Your task to perform on an android device: Go to notification settings Image 0: 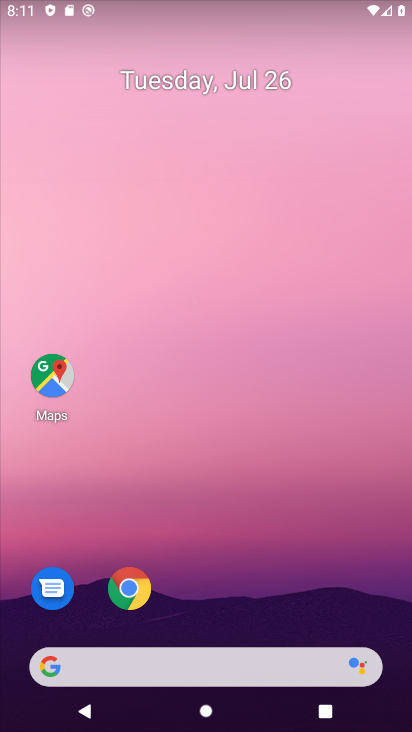
Step 0: drag from (260, 606) to (260, 135)
Your task to perform on an android device: Go to notification settings Image 1: 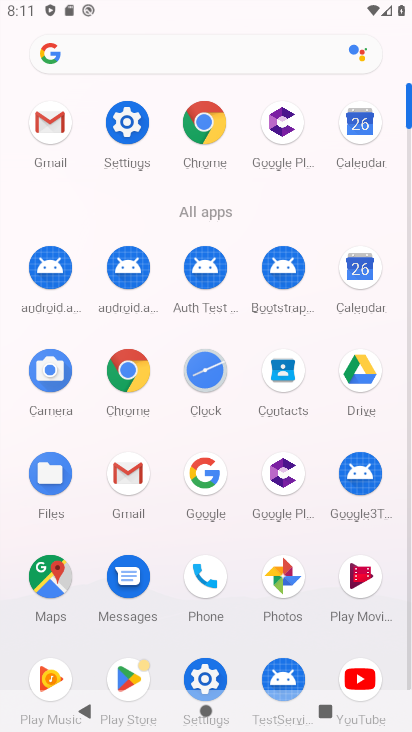
Step 1: click (127, 126)
Your task to perform on an android device: Go to notification settings Image 2: 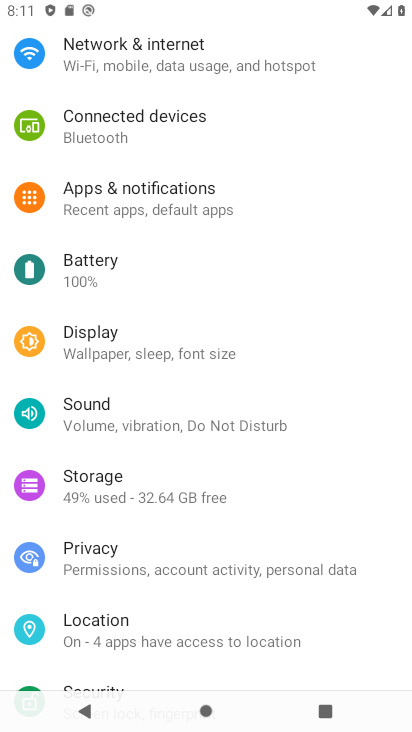
Step 2: click (143, 193)
Your task to perform on an android device: Go to notification settings Image 3: 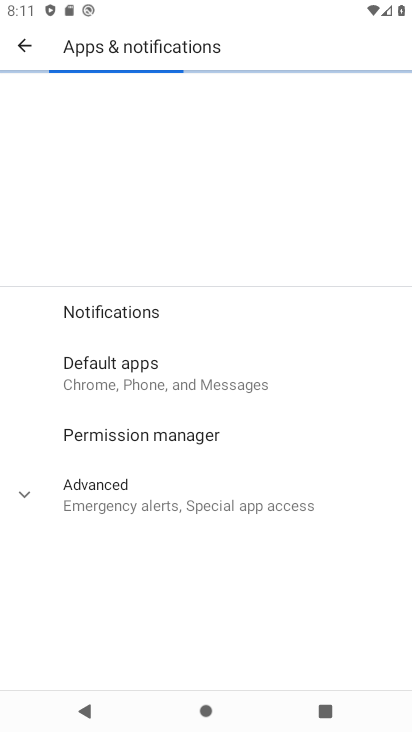
Step 3: click (106, 319)
Your task to perform on an android device: Go to notification settings Image 4: 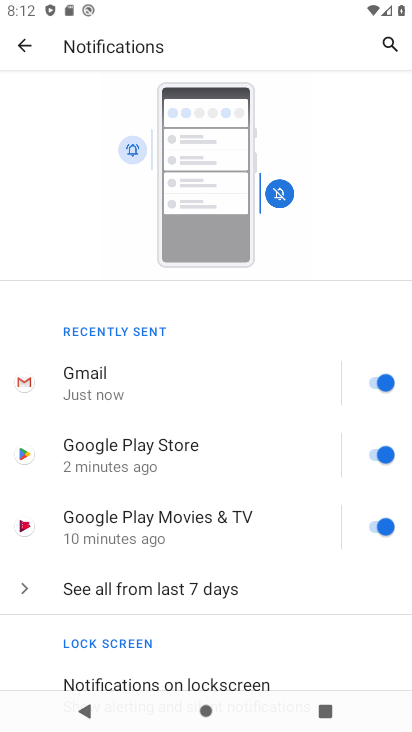
Step 4: task complete